Your task to perform on an android device: install app "Move to iOS" Image 0: 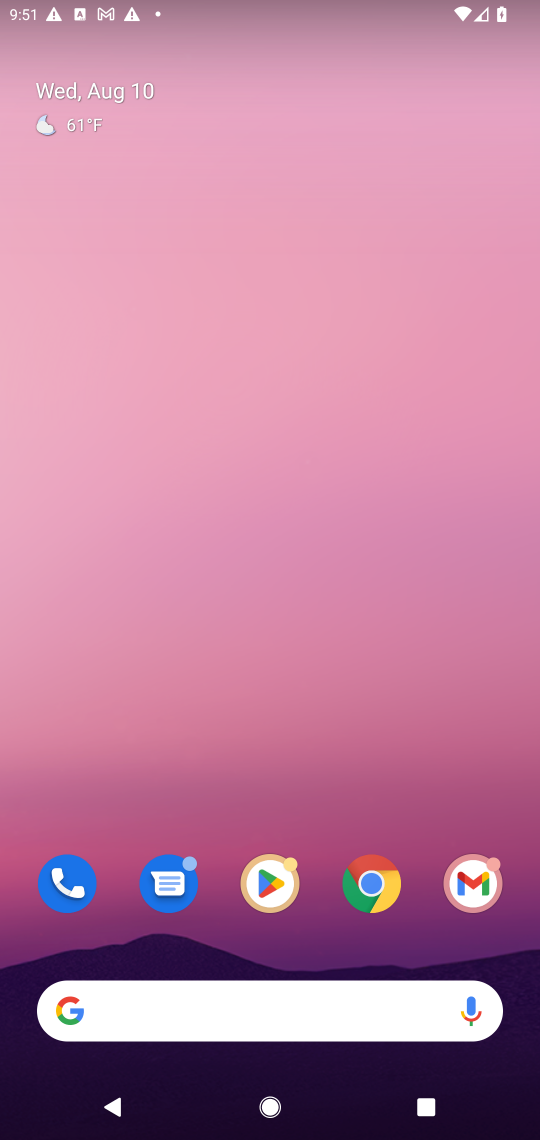
Step 0: click (283, 882)
Your task to perform on an android device: install app "Move to iOS" Image 1: 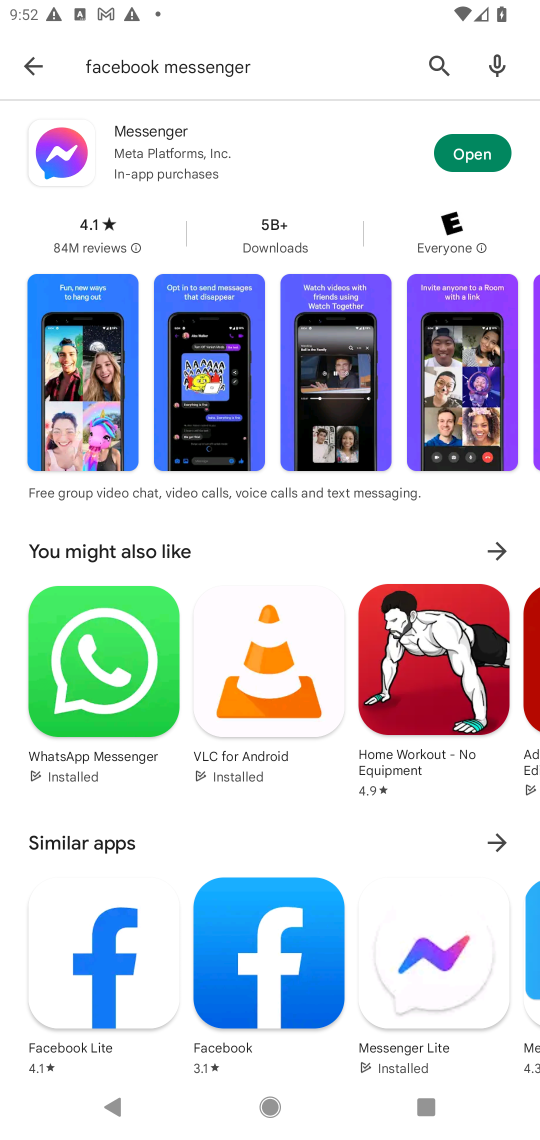
Step 1: click (427, 60)
Your task to perform on an android device: install app "Move to iOS" Image 2: 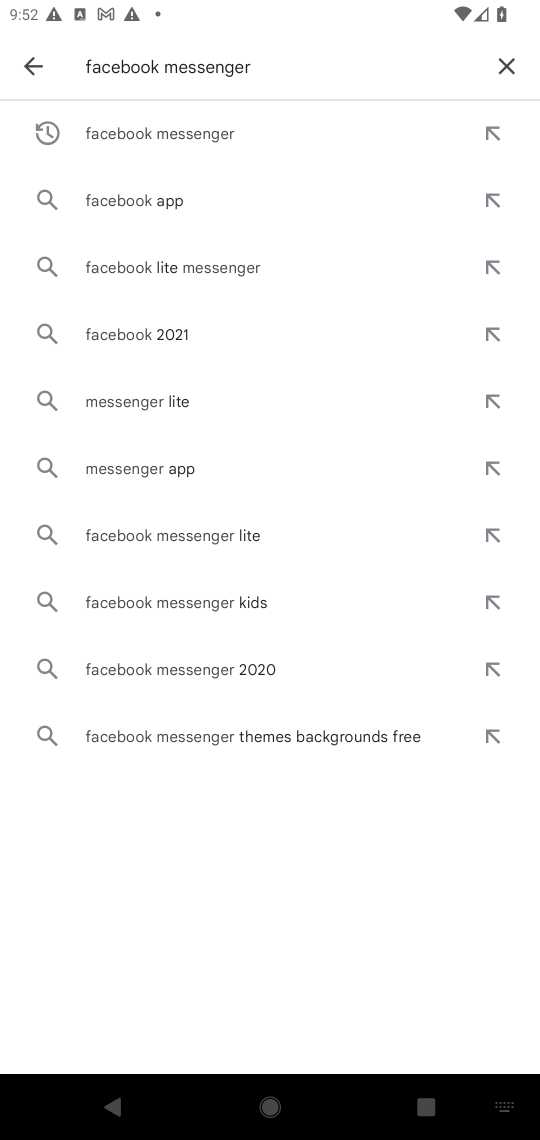
Step 2: click (509, 69)
Your task to perform on an android device: install app "Move to iOS" Image 3: 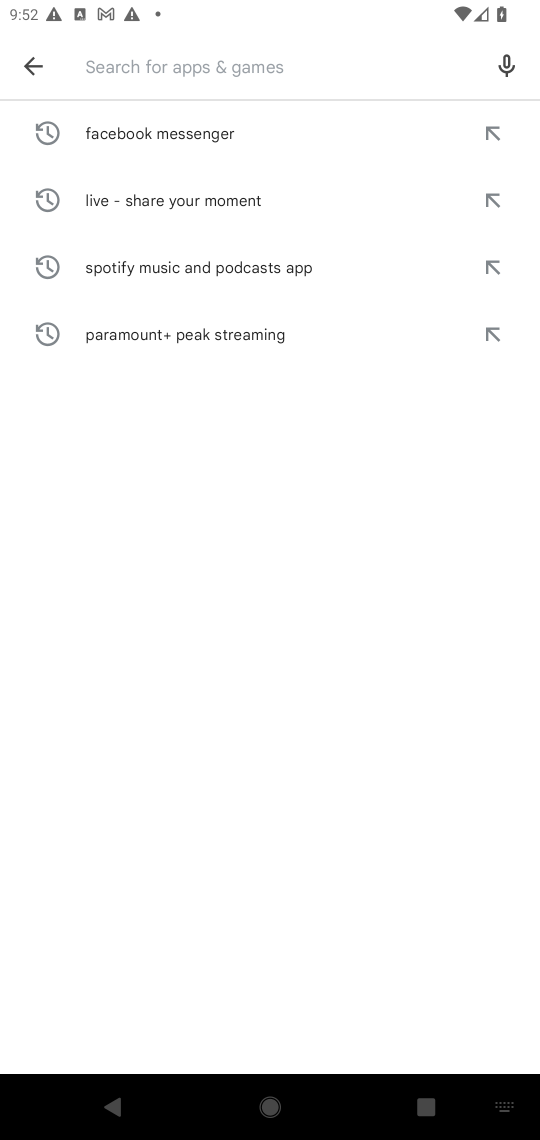
Step 3: type "Move to iOS"
Your task to perform on an android device: install app "Move to iOS" Image 4: 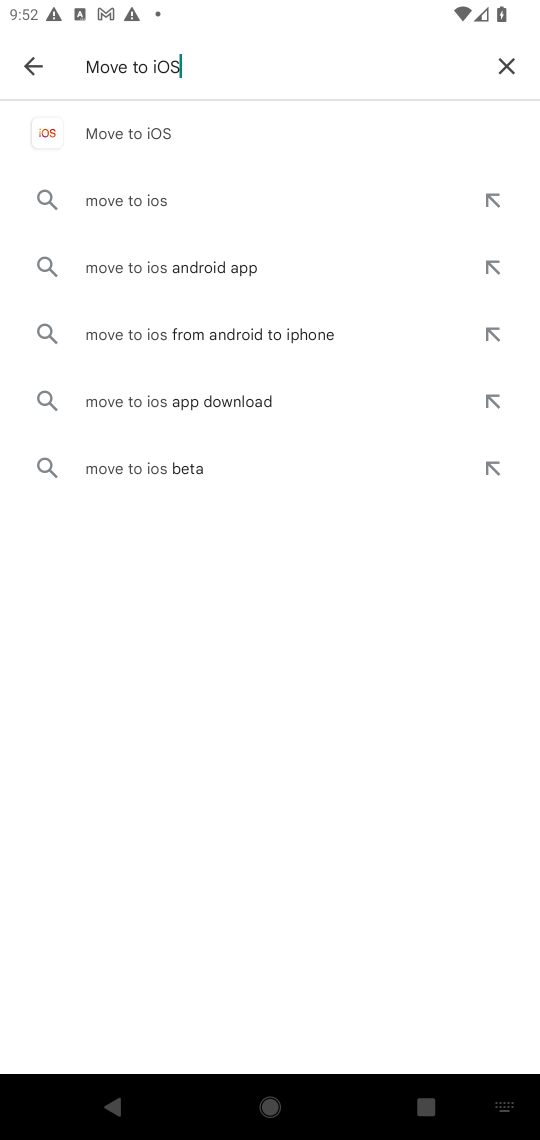
Step 4: click (134, 116)
Your task to perform on an android device: install app "Move to iOS" Image 5: 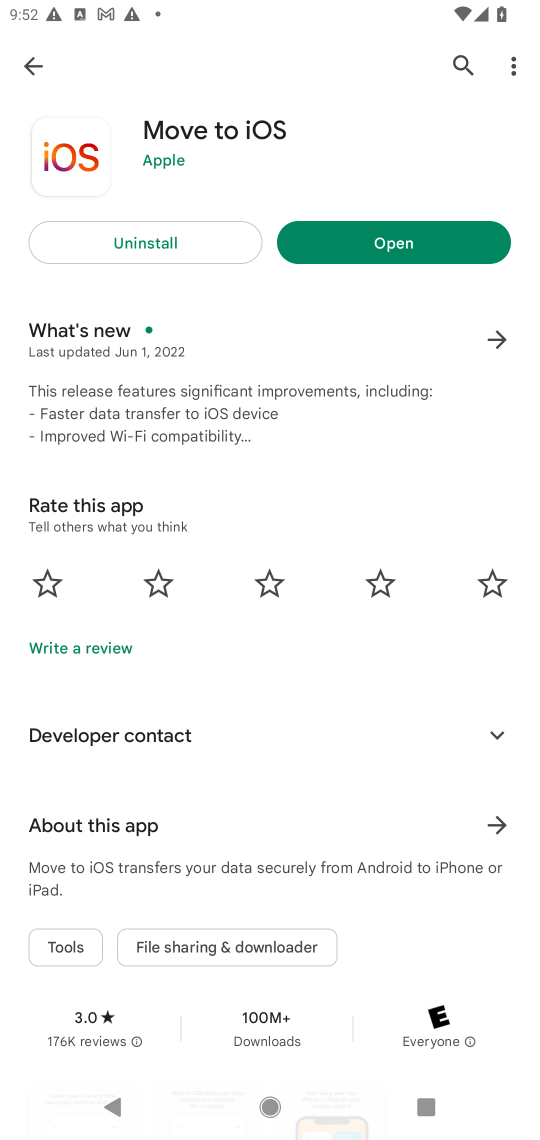
Step 5: task complete